Your task to perform on an android device: When is my next meeting? Image 0: 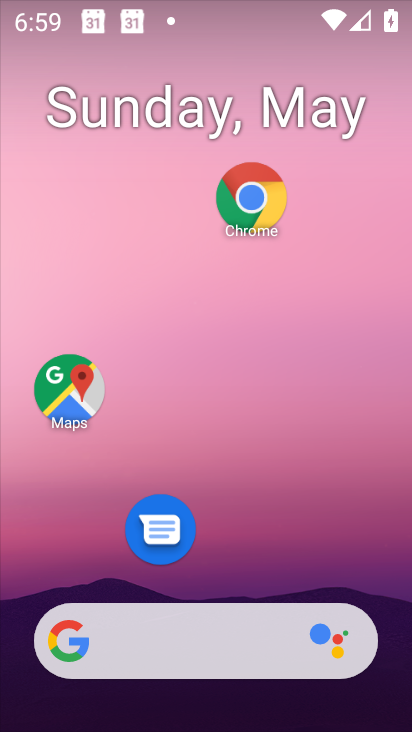
Step 0: drag from (263, 586) to (262, 238)
Your task to perform on an android device: When is my next meeting? Image 1: 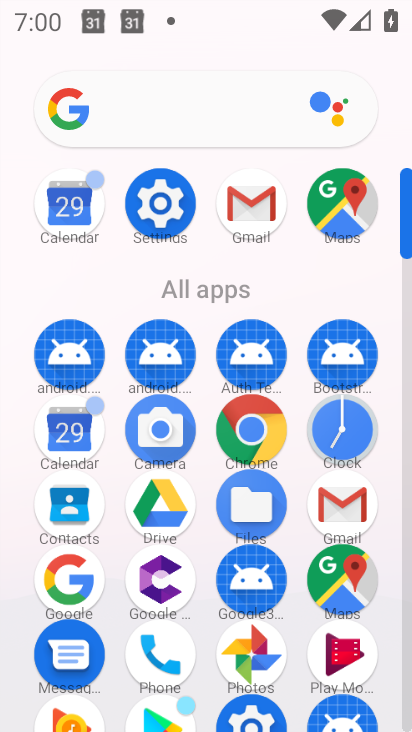
Step 1: click (74, 419)
Your task to perform on an android device: When is my next meeting? Image 2: 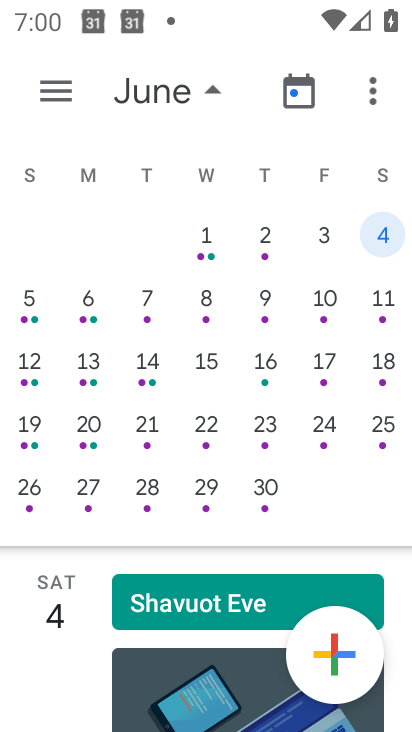
Step 2: click (222, 257)
Your task to perform on an android device: When is my next meeting? Image 3: 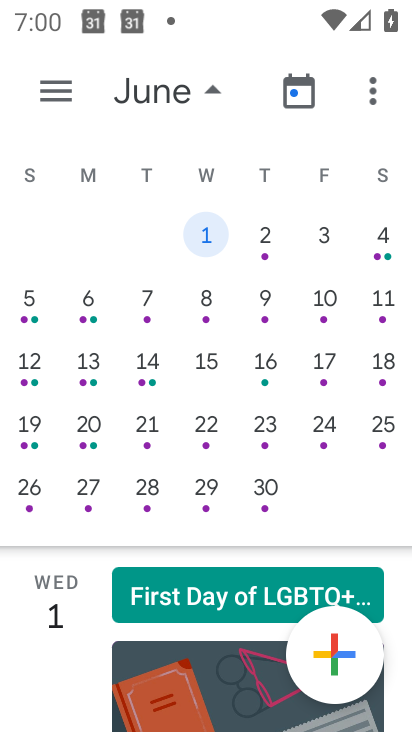
Step 3: click (65, 94)
Your task to perform on an android device: When is my next meeting? Image 4: 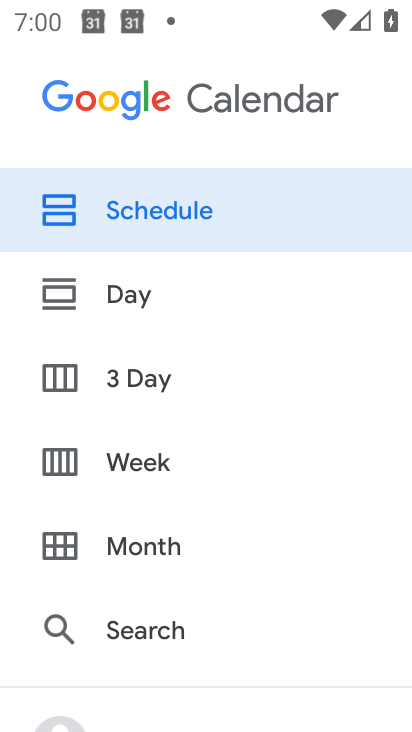
Step 4: drag from (117, 642) to (186, 183)
Your task to perform on an android device: When is my next meeting? Image 5: 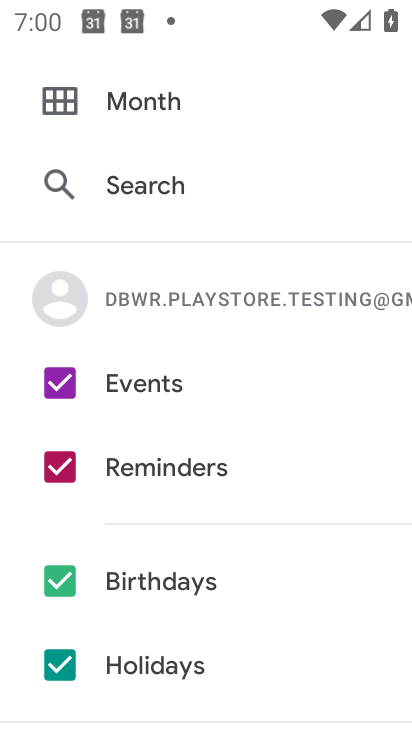
Step 5: drag from (91, 615) to (122, 281)
Your task to perform on an android device: When is my next meeting? Image 6: 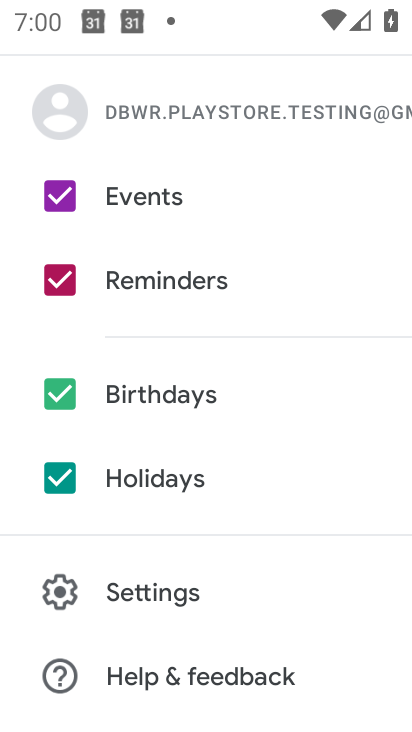
Step 6: click (60, 477)
Your task to perform on an android device: When is my next meeting? Image 7: 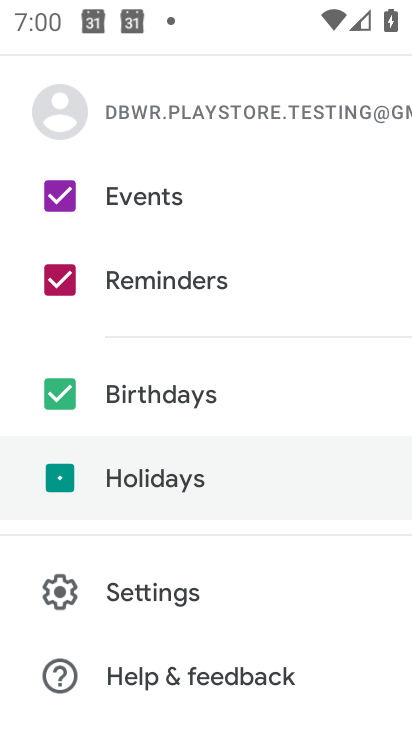
Step 7: click (70, 392)
Your task to perform on an android device: When is my next meeting? Image 8: 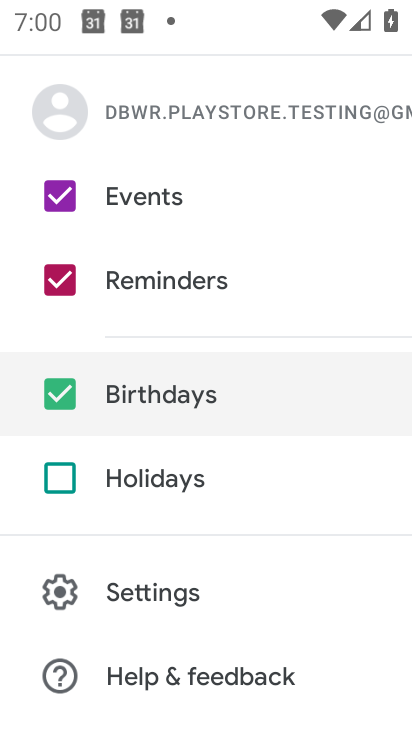
Step 8: drag from (111, 345) to (102, 586)
Your task to perform on an android device: When is my next meeting? Image 9: 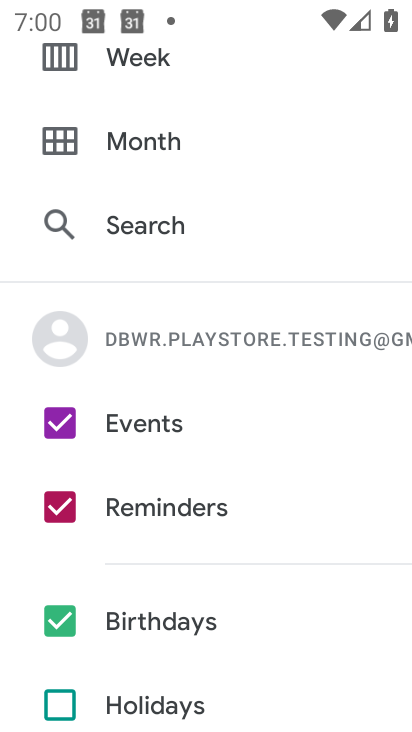
Step 9: click (69, 627)
Your task to perform on an android device: When is my next meeting? Image 10: 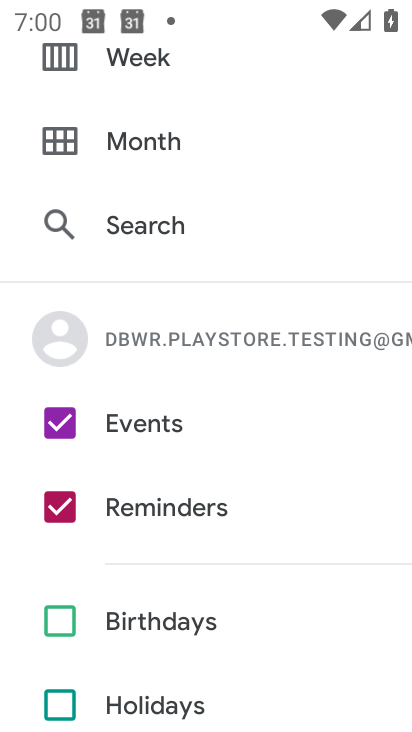
Step 10: drag from (152, 99) to (121, 558)
Your task to perform on an android device: When is my next meeting? Image 11: 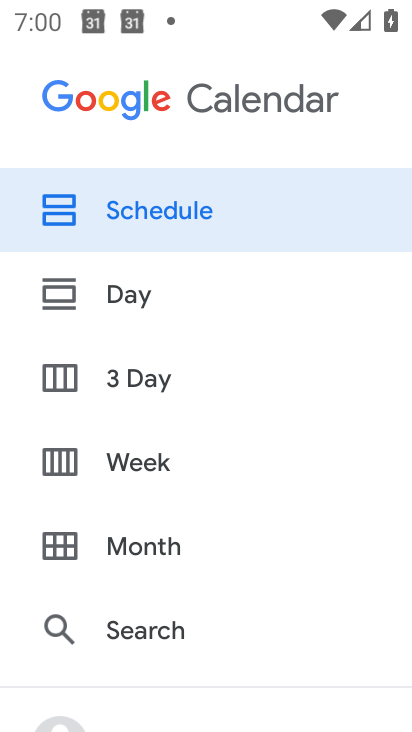
Step 11: click (107, 206)
Your task to perform on an android device: When is my next meeting? Image 12: 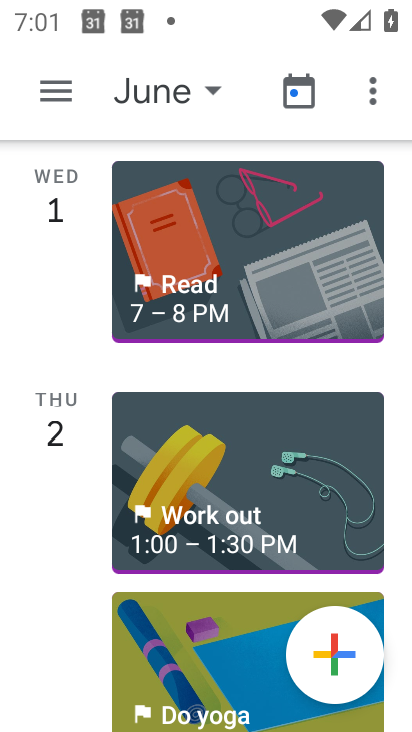
Step 12: task complete